Your task to perform on an android device: Open CNN.com Image 0: 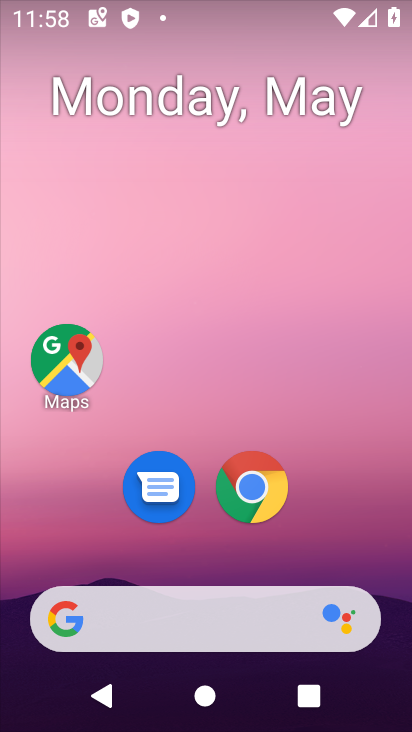
Step 0: drag from (399, 571) to (406, 297)
Your task to perform on an android device: Open CNN.com Image 1: 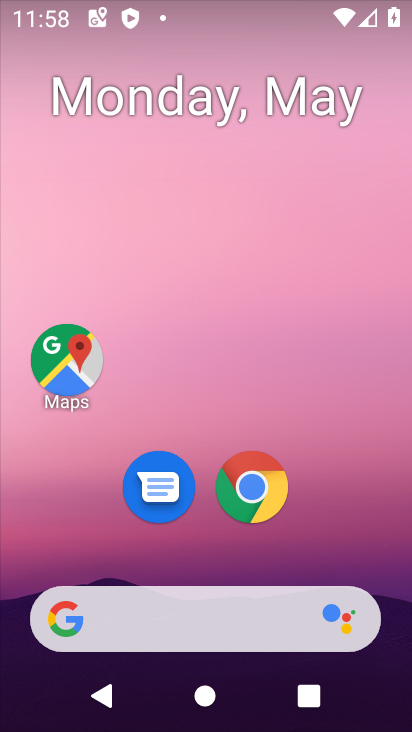
Step 1: drag from (385, 573) to (388, 243)
Your task to perform on an android device: Open CNN.com Image 2: 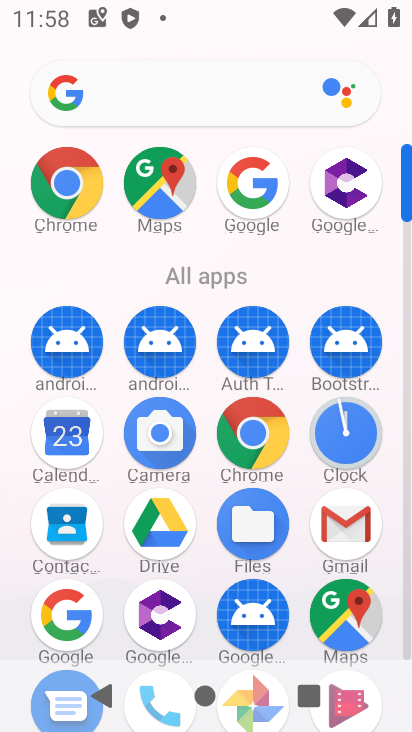
Step 2: click (259, 437)
Your task to perform on an android device: Open CNN.com Image 3: 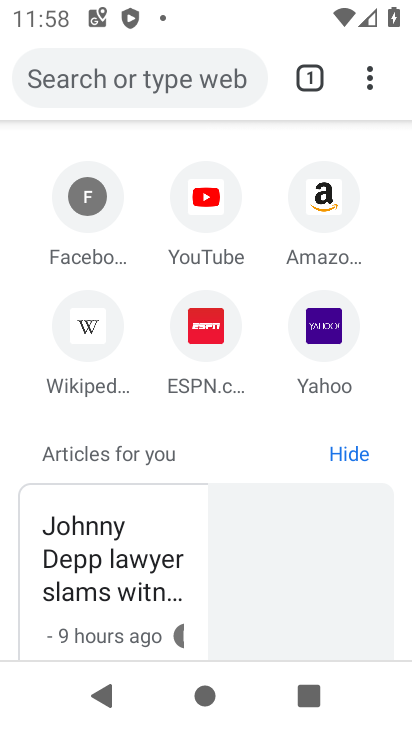
Step 3: click (207, 96)
Your task to perform on an android device: Open CNN.com Image 4: 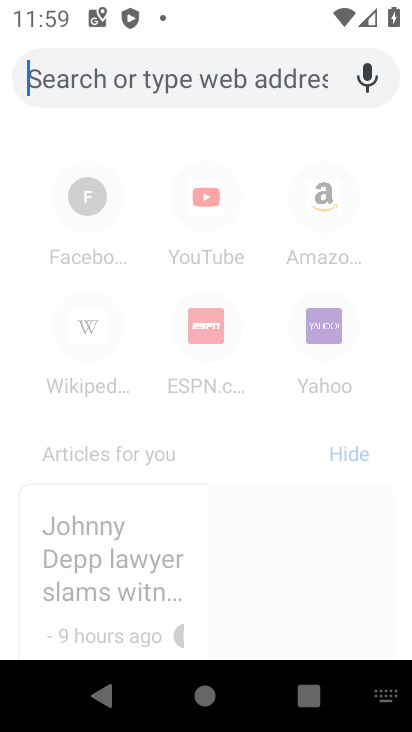
Step 4: type "cnn.com"
Your task to perform on an android device: Open CNN.com Image 5: 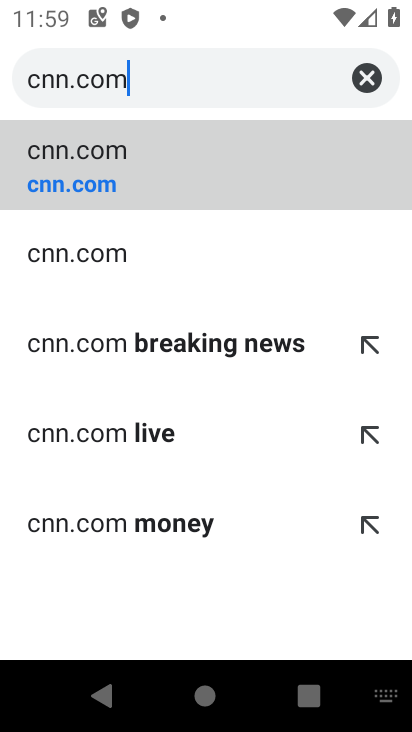
Step 5: click (127, 181)
Your task to perform on an android device: Open CNN.com Image 6: 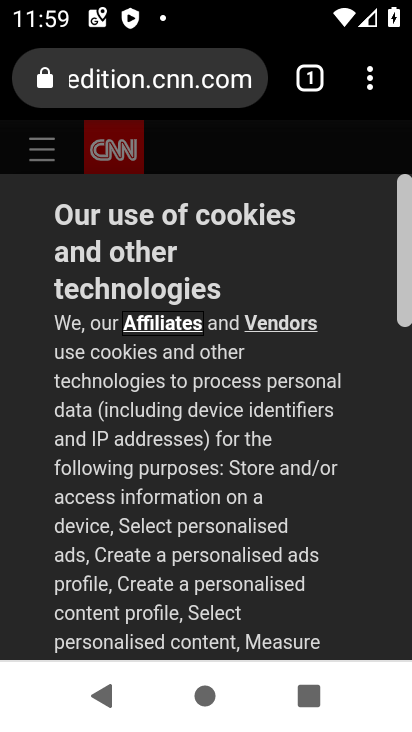
Step 6: task complete